Your task to perform on an android device: empty trash in google photos Image 0: 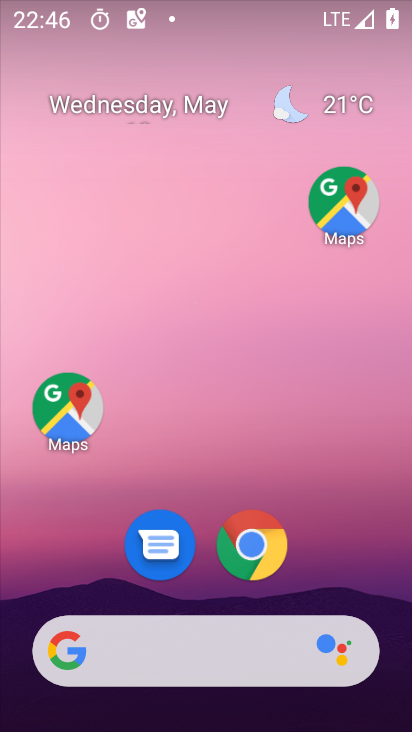
Step 0: drag from (315, 559) to (259, 31)
Your task to perform on an android device: empty trash in google photos Image 1: 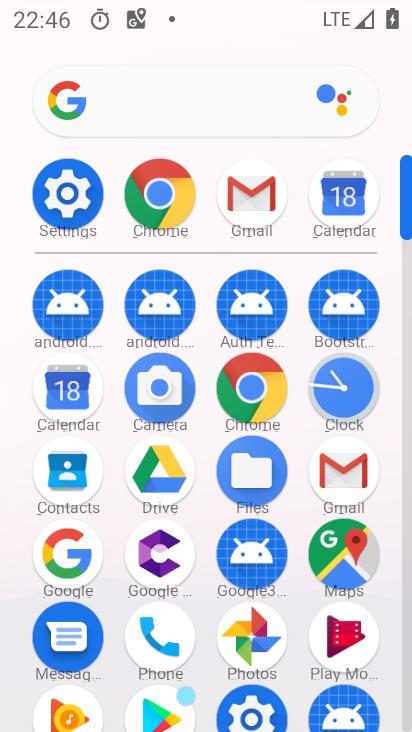
Step 1: click (258, 646)
Your task to perform on an android device: empty trash in google photos Image 2: 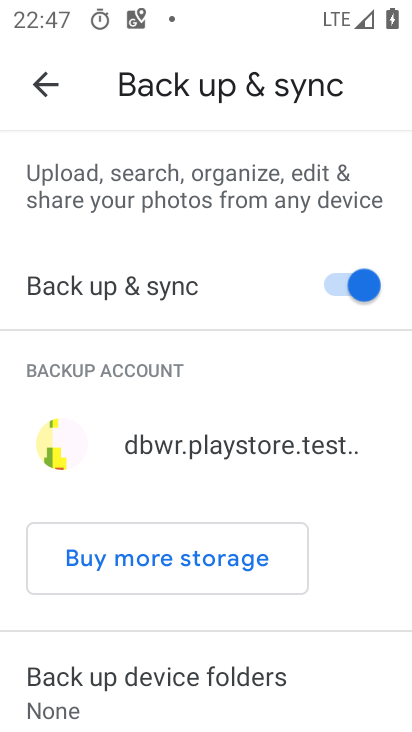
Step 2: click (36, 79)
Your task to perform on an android device: empty trash in google photos Image 3: 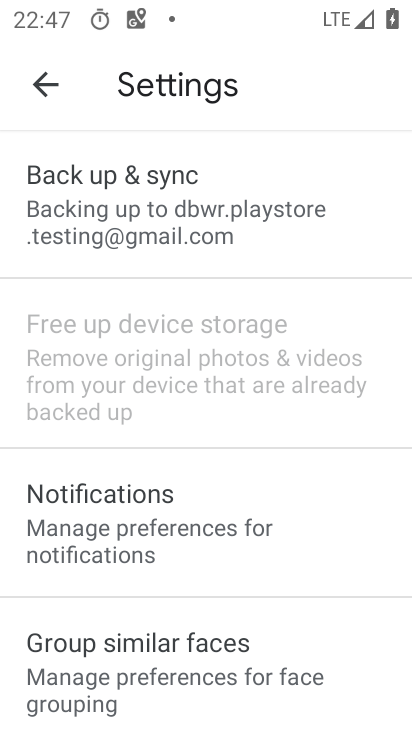
Step 3: click (46, 71)
Your task to perform on an android device: empty trash in google photos Image 4: 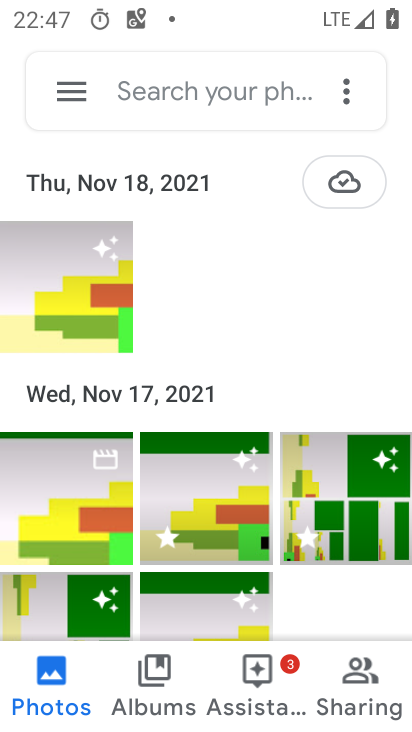
Step 4: click (66, 85)
Your task to perform on an android device: empty trash in google photos Image 5: 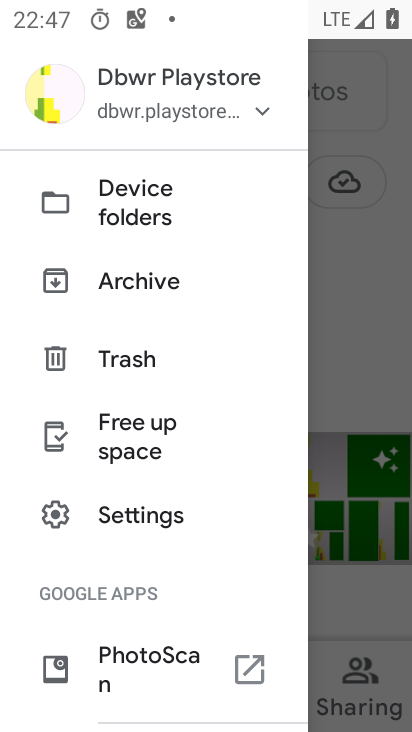
Step 5: click (131, 339)
Your task to perform on an android device: empty trash in google photos Image 6: 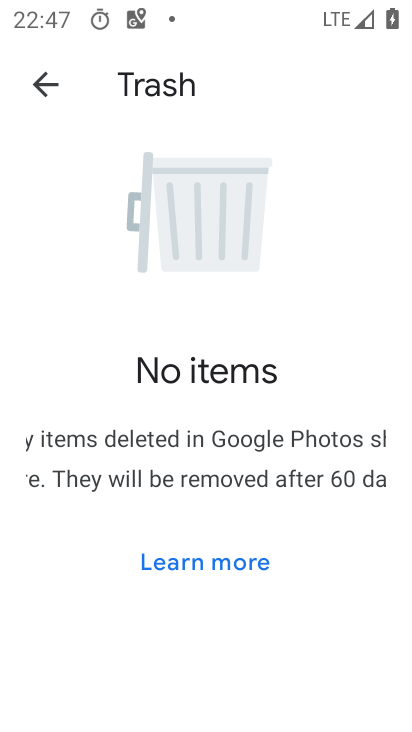
Step 6: task complete